Your task to perform on an android device: When is my next appointment? Image 0: 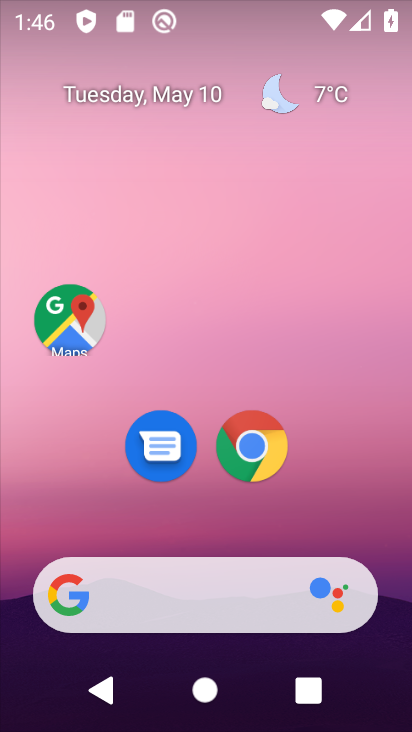
Step 0: drag from (356, 449) to (353, 117)
Your task to perform on an android device: When is my next appointment? Image 1: 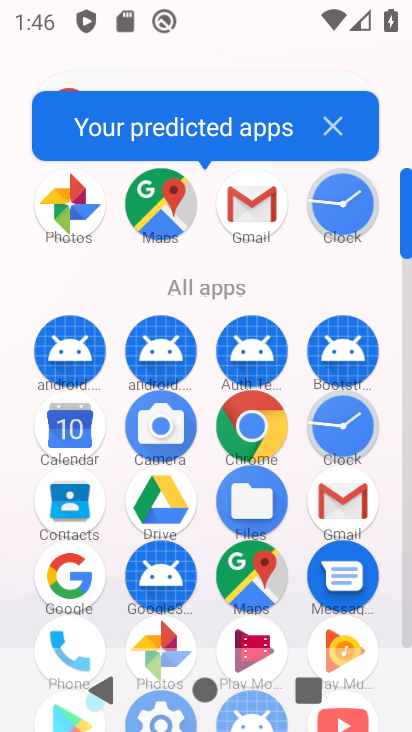
Step 1: click (62, 430)
Your task to perform on an android device: When is my next appointment? Image 2: 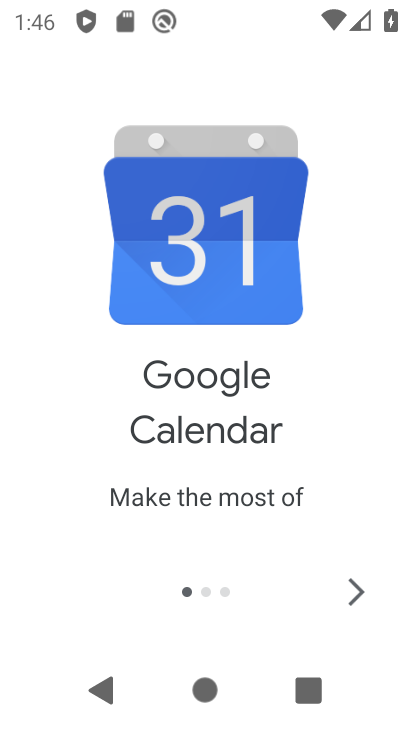
Step 2: click (339, 585)
Your task to perform on an android device: When is my next appointment? Image 3: 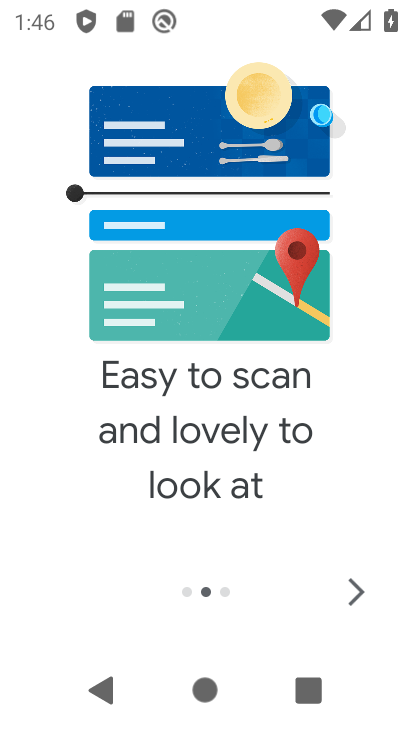
Step 3: click (346, 596)
Your task to perform on an android device: When is my next appointment? Image 4: 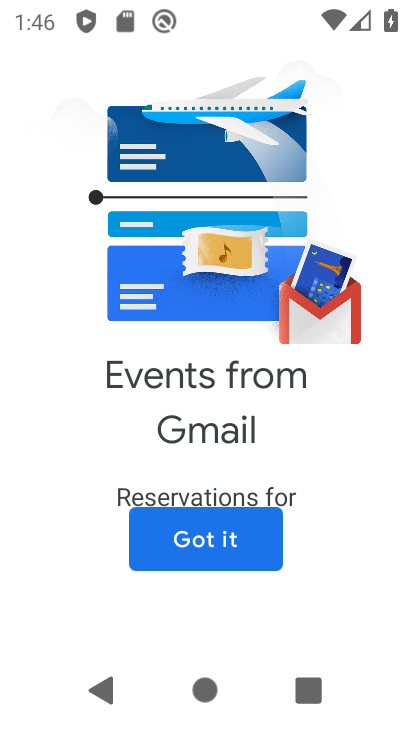
Step 4: click (346, 596)
Your task to perform on an android device: When is my next appointment? Image 5: 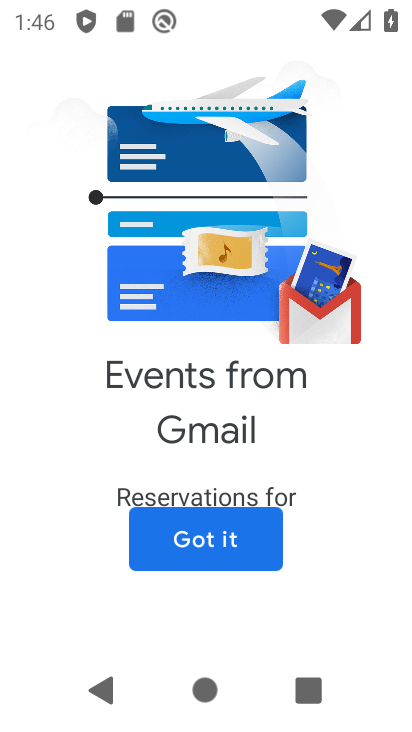
Step 5: click (230, 561)
Your task to perform on an android device: When is my next appointment? Image 6: 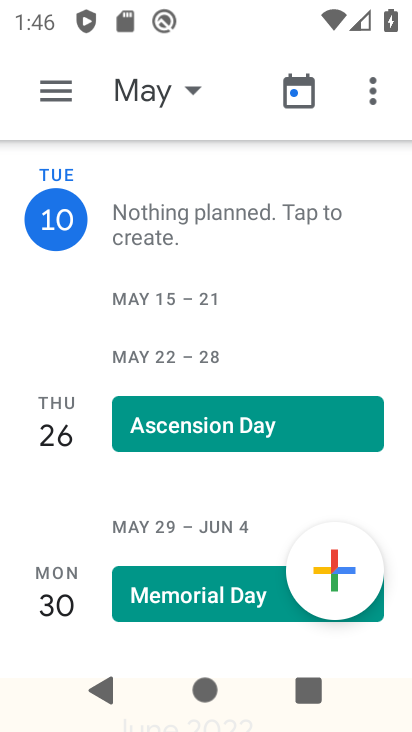
Step 6: click (150, 97)
Your task to perform on an android device: When is my next appointment? Image 7: 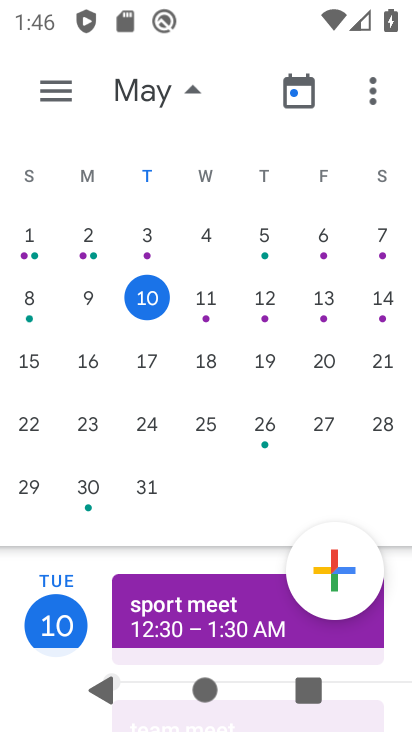
Step 7: click (199, 297)
Your task to perform on an android device: When is my next appointment? Image 8: 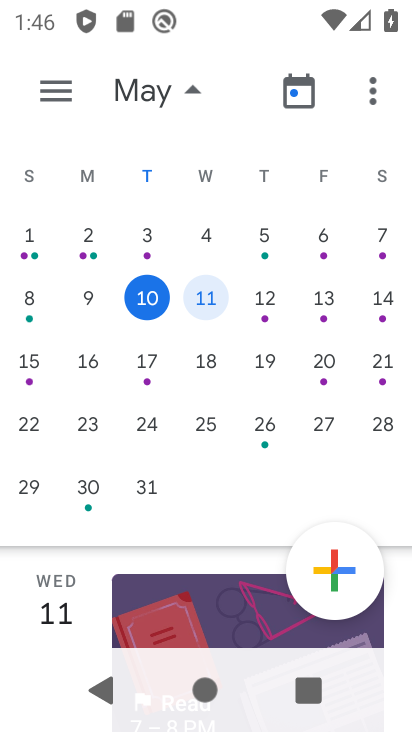
Step 8: click (262, 298)
Your task to perform on an android device: When is my next appointment? Image 9: 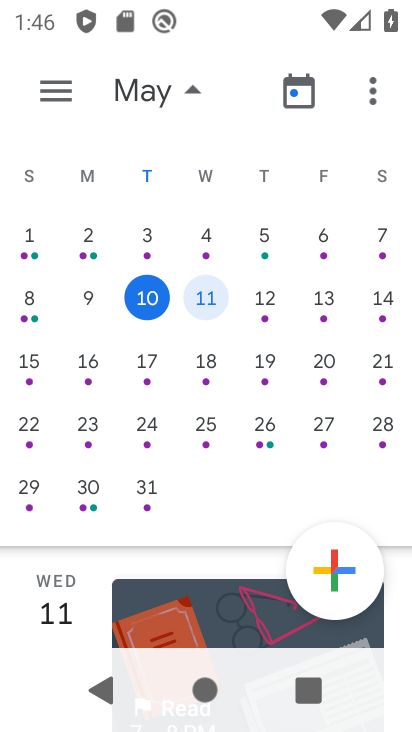
Step 9: task complete